Your task to perform on an android device: open chrome privacy settings Image 0: 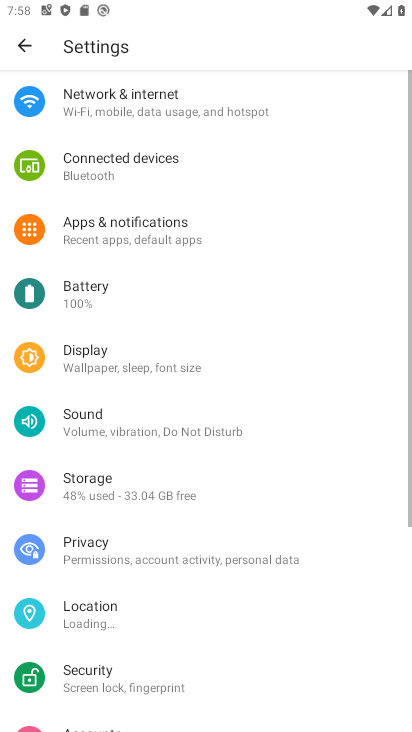
Step 0: press home button
Your task to perform on an android device: open chrome privacy settings Image 1: 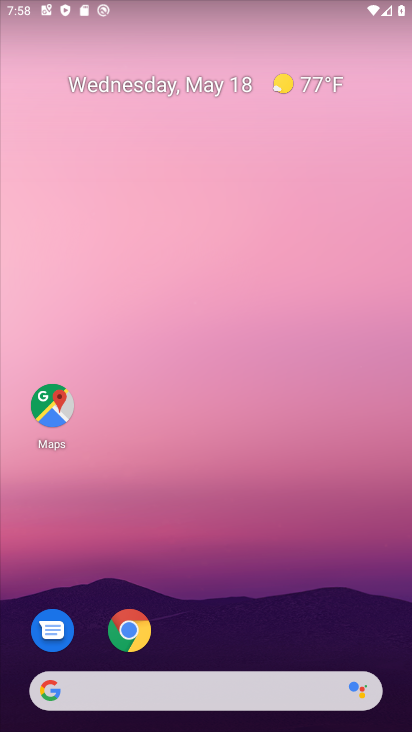
Step 1: drag from (283, 603) to (292, 199)
Your task to perform on an android device: open chrome privacy settings Image 2: 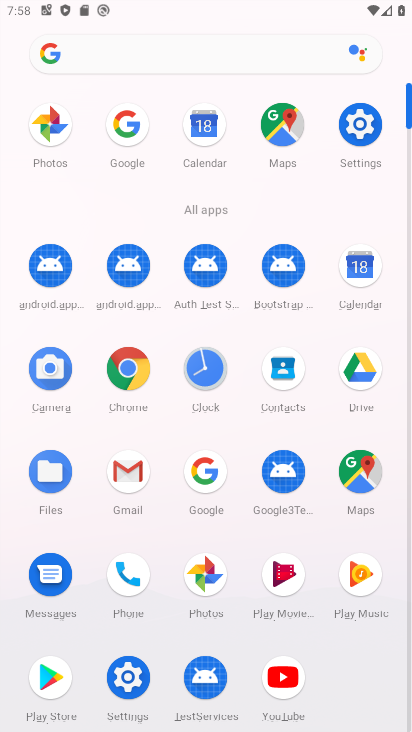
Step 2: click (359, 134)
Your task to perform on an android device: open chrome privacy settings Image 3: 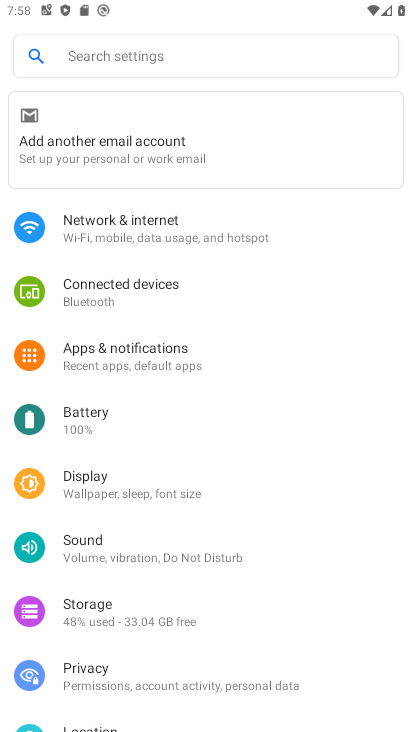
Step 3: click (174, 685)
Your task to perform on an android device: open chrome privacy settings Image 4: 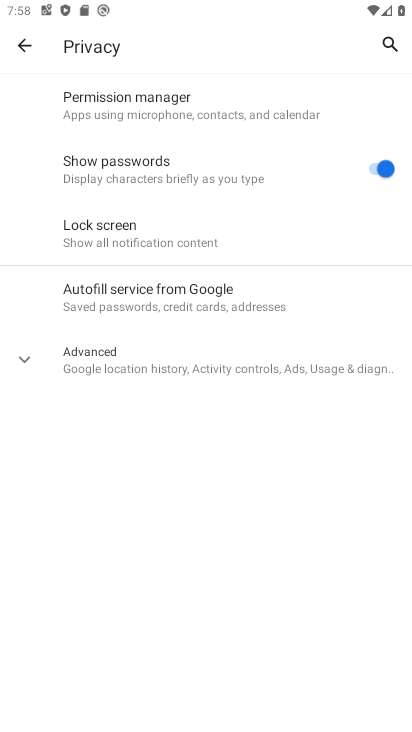
Step 4: task complete